Your task to perform on an android device: Open the phone app and click the voicemail tab. Image 0: 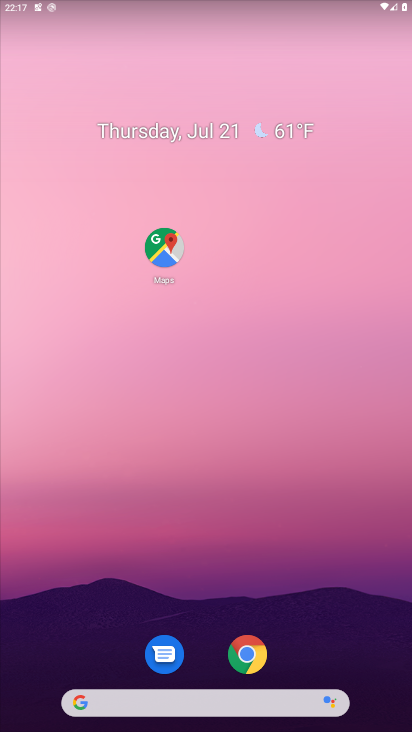
Step 0: drag from (42, 715) to (231, 151)
Your task to perform on an android device: Open the phone app and click the voicemail tab. Image 1: 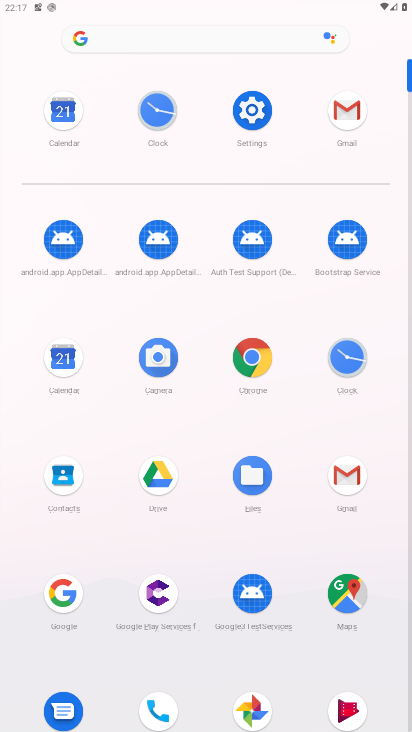
Step 1: click (142, 695)
Your task to perform on an android device: Open the phone app and click the voicemail tab. Image 2: 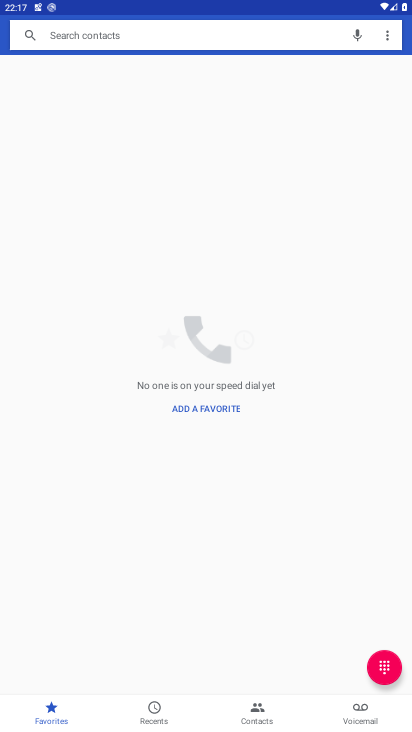
Step 2: click (358, 707)
Your task to perform on an android device: Open the phone app and click the voicemail tab. Image 3: 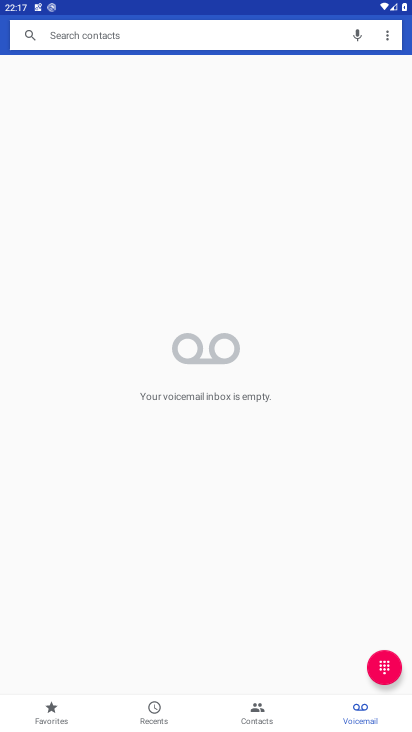
Step 3: task complete